Your task to perform on an android device: check out phone information Image 0: 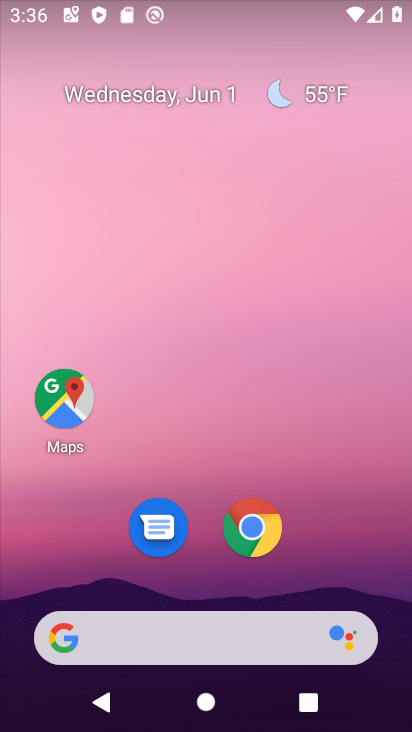
Step 0: drag from (326, 557) to (292, 86)
Your task to perform on an android device: check out phone information Image 1: 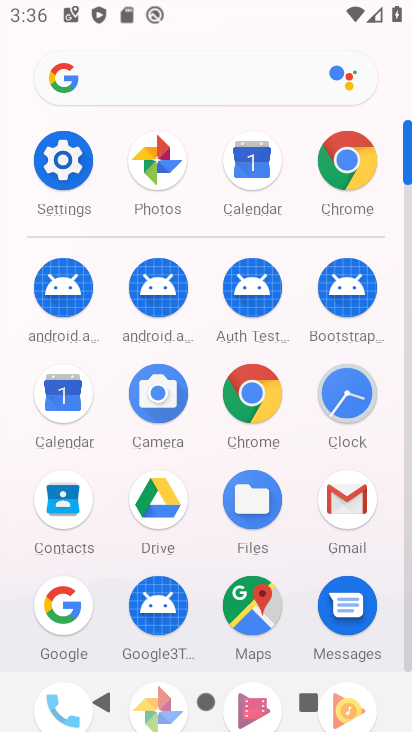
Step 1: drag from (62, 592) to (123, 339)
Your task to perform on an android device: check out phone information Image 2: 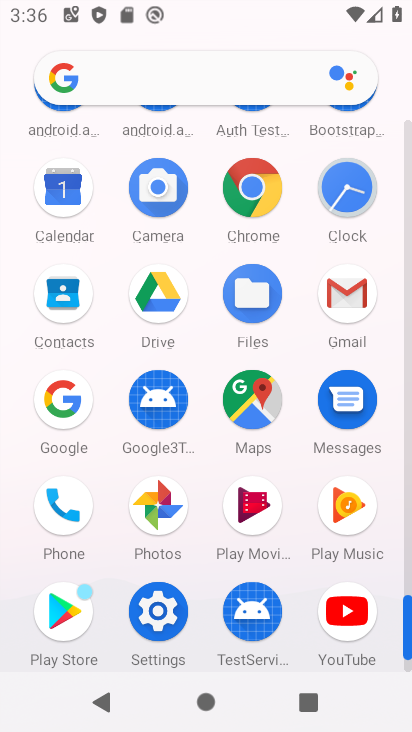
Step 2: click (55, 532)
Your task to perform on an android device: check out phone information Image 3: 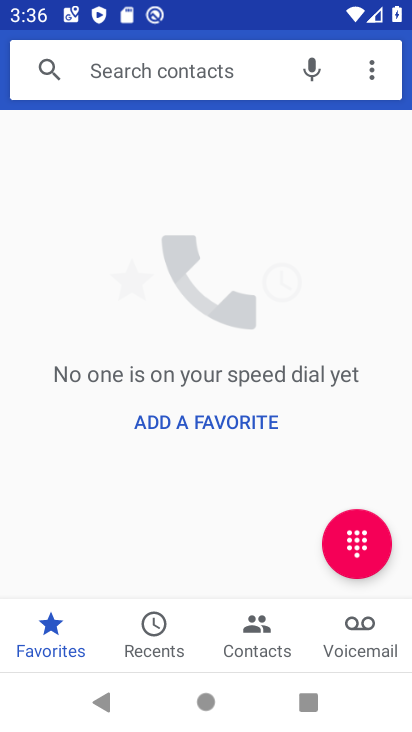
Step 3: press back button
Your task to perform on an android device: check out phone information Image 4: 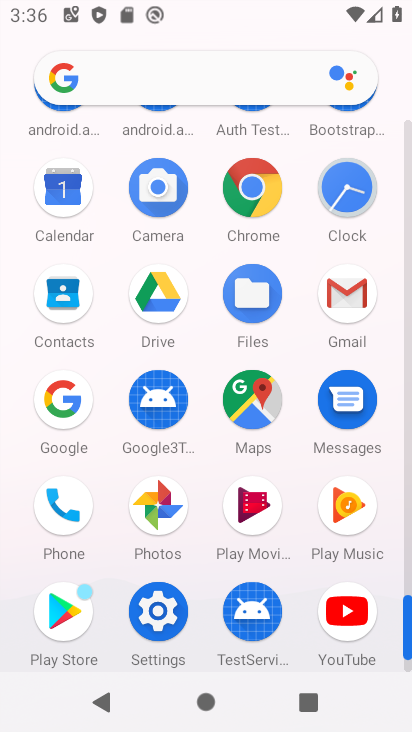
Step 4: click (73, 508)
Your task to perform on an android device: check out phone information Image 5: 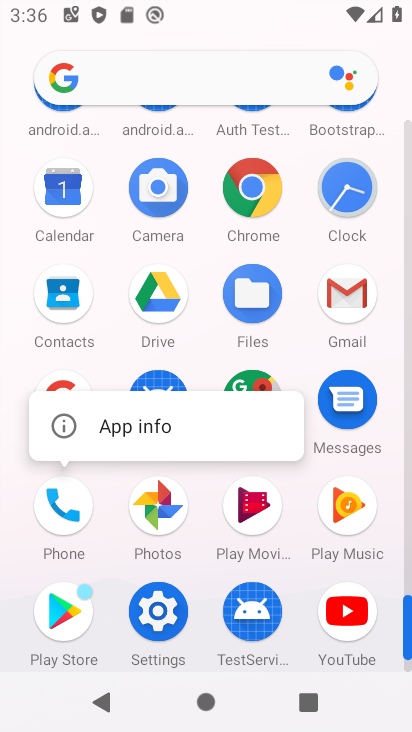
Step 5: click (188, 433)
Your task to perform on an android device: check out phone information Image 6: 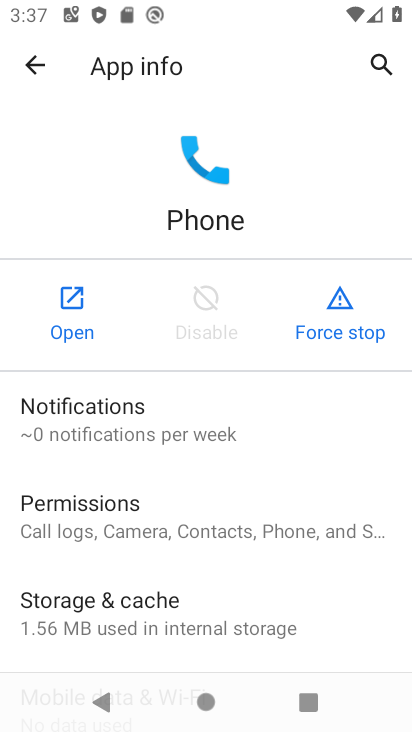
Step 6: task complete